Your task to perform on an android device: open chrome privacy settings Image 0: 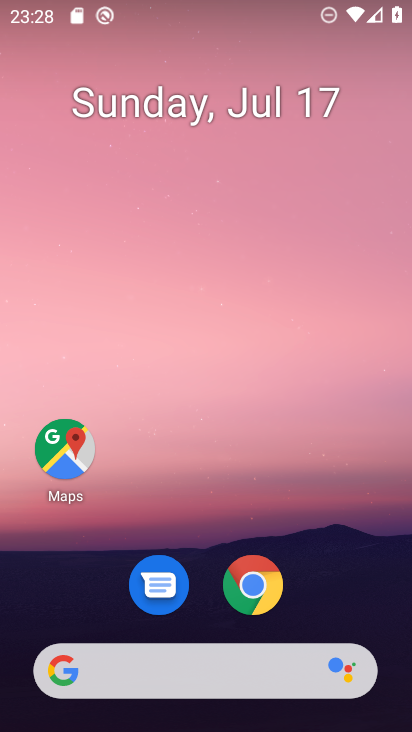
Step 0: press home button
Your task to perform on an android device: open chrome privacy settings Image 1: 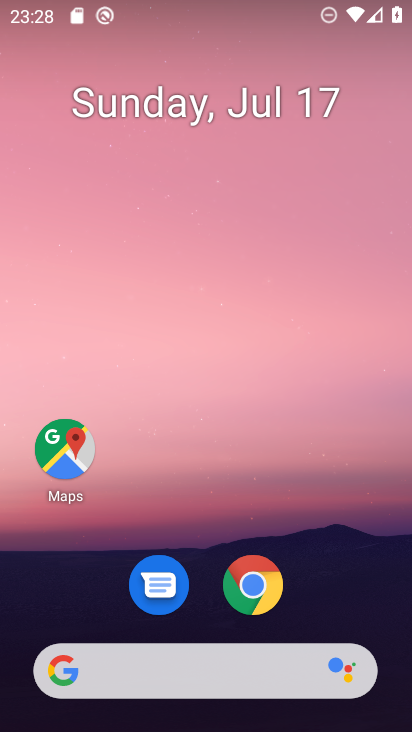
Step 1: click (252, 584)
Your task to perform on an android device: open chrome privacy settings Image 2: 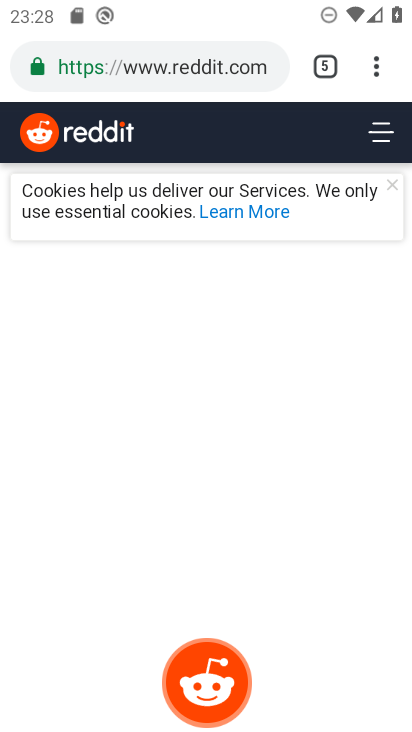
Step 2: drag from (375, 68) to (170, 586)
Your task to perform on an android device: open chrome privacy settings Image 3: 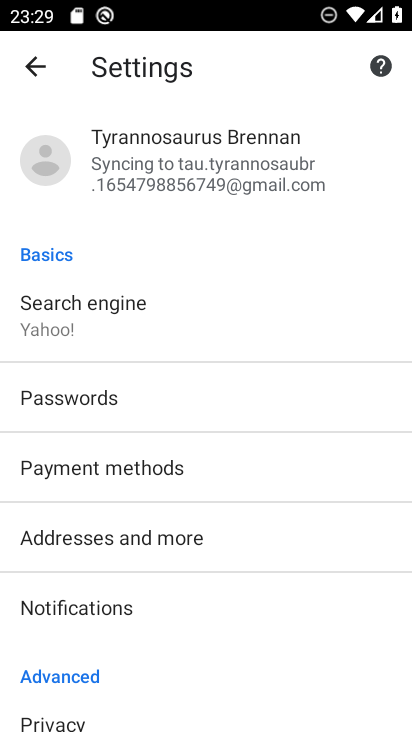
Step 3: drag from (143, 637) to (248, 259)
Your task to perform on an android device: open chrome privacy settings Image 4: 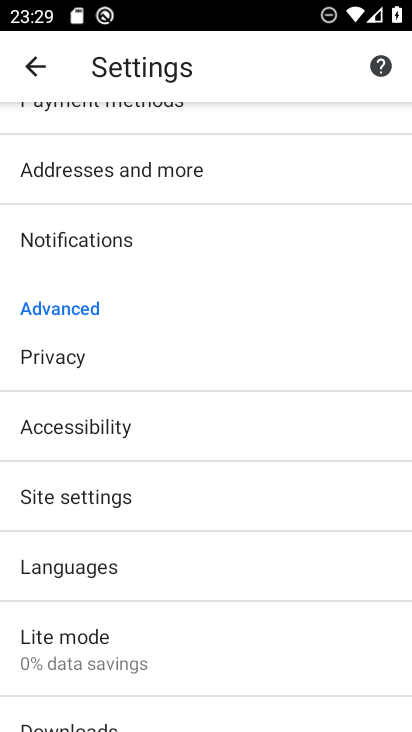
Step 4: click (79, 352)
Your task to perform on an android device: open chrome privacy settings Image 5: 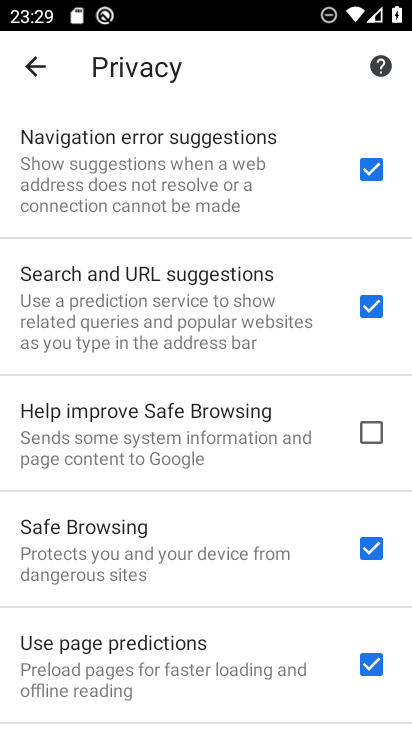
Step 5: task complete